Your task to perform on an android device: Open sound settings Image 0: 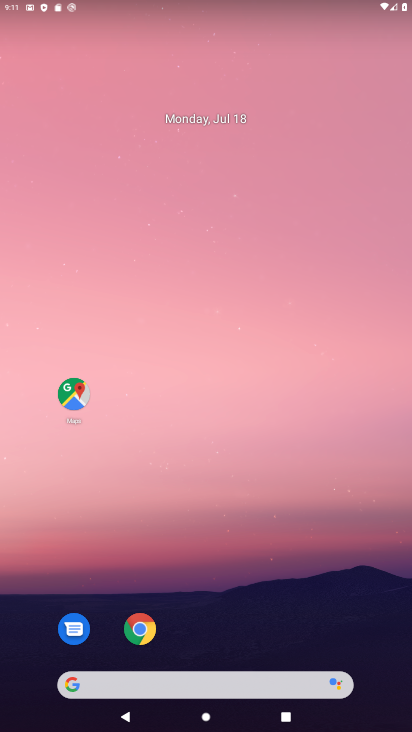
Step 0: drag from (194, 301) to (216, 195)
Your task to perform on an android device: Open sound settings Image 1: 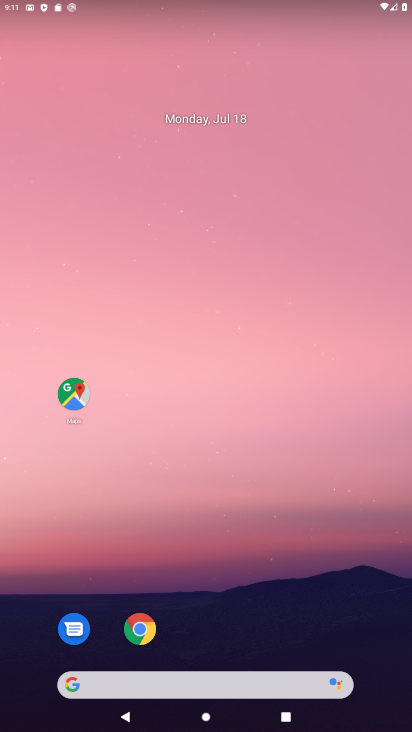
Step 1: drag from (255, 638) to (298, 159)
Your task to perform on an android device: Open sound settings Image 2: 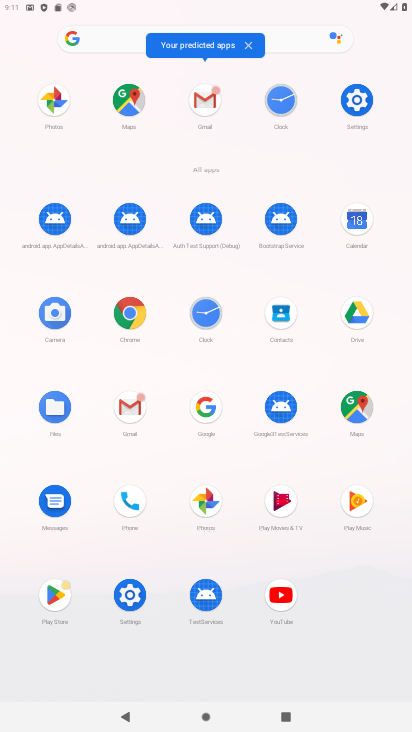
Step 2: click (121, 595)
Your task to perform on an android device: Open sound settings Image 3: 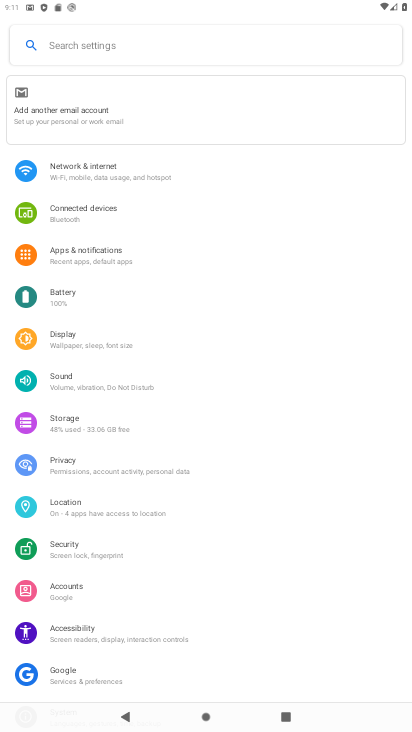
Step 3: click (96, 382)
Your task to perform on an android device: Open sound settings Image 4: 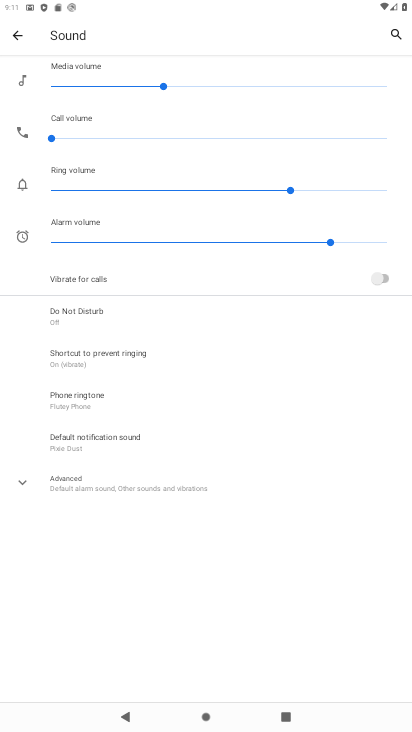
Step 4: task complete